Your task to perform on an android device: turn notification dots off Image 0: 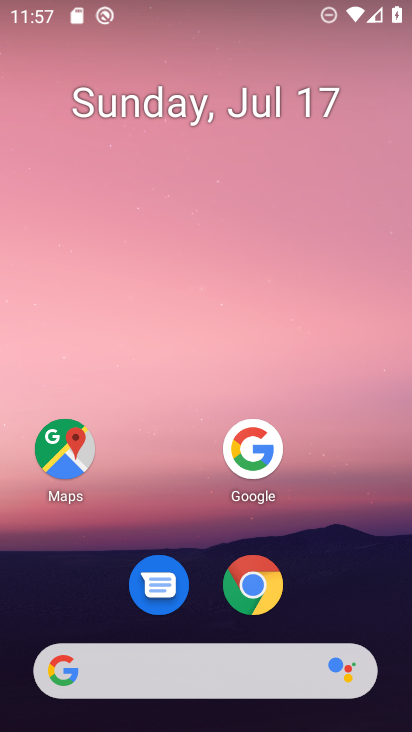
Step 0: drag from (222, 653) to (304, 147)
Your task to perform on an android device: turn notification dots off Image 1: 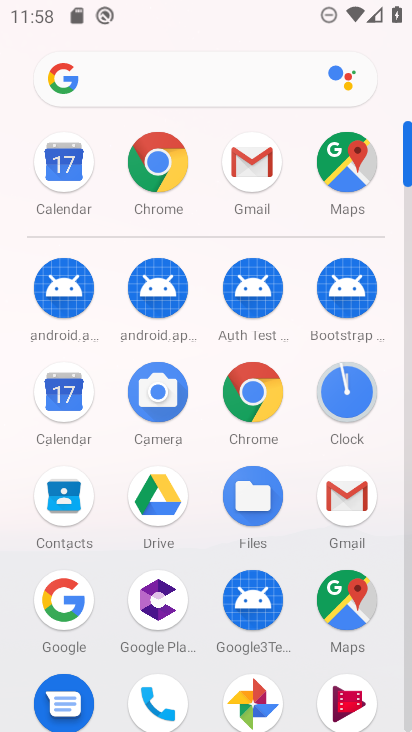
Step 1: drag from (223, 645) to (381, 174)
Your task to perform on an android device: turn notification dots off Image 2: 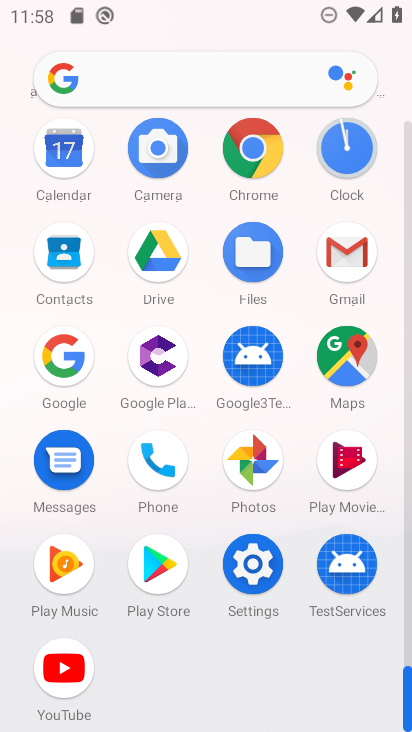
Step 2: click (259, 569)
Your task to perform on an android device: turn notification dots off Image 3: 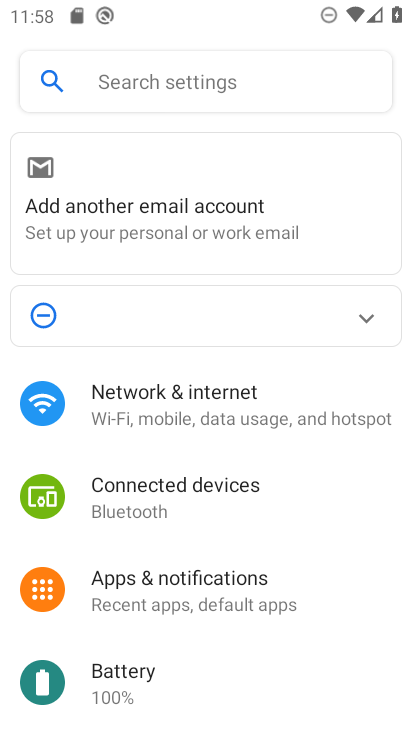
Step 3: click (207, 583)
Your task to perform on an android device: turn notification dots off Image 4: 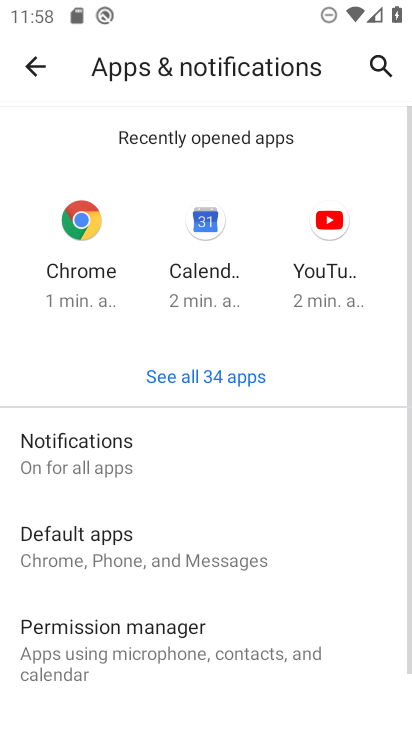
Step 4: click (108, 460)
Your task to perform on an android device: turn notification dots off Image 5: 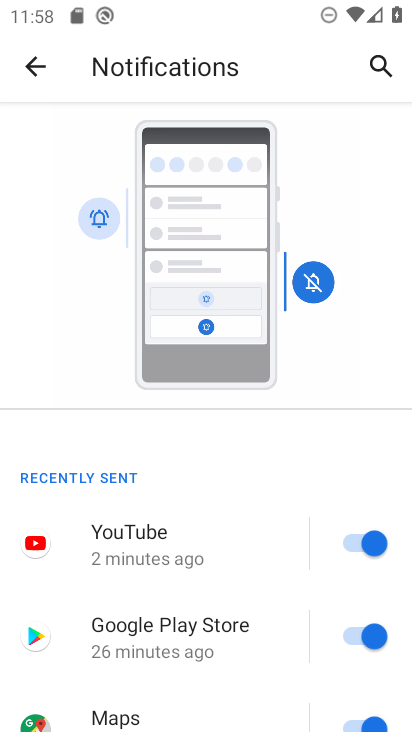
Step 5: drag from (184, 658) to (321, 84)
Your task to perform on an android device: turn notification dots off Image 6: 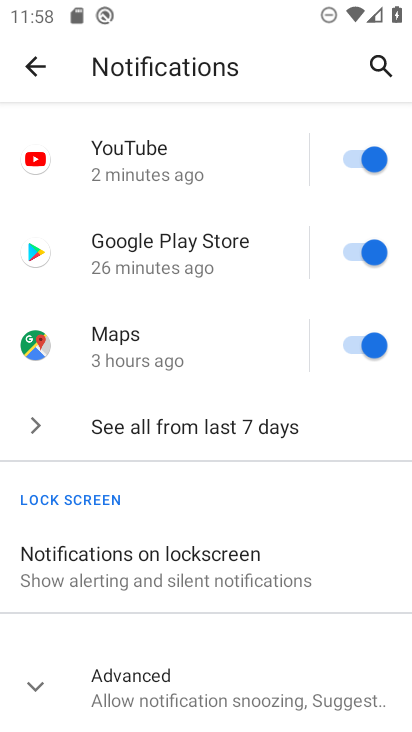
Step 6: click (153, 690)
Your task to perform on an android device: turn notification dots off Image 7: 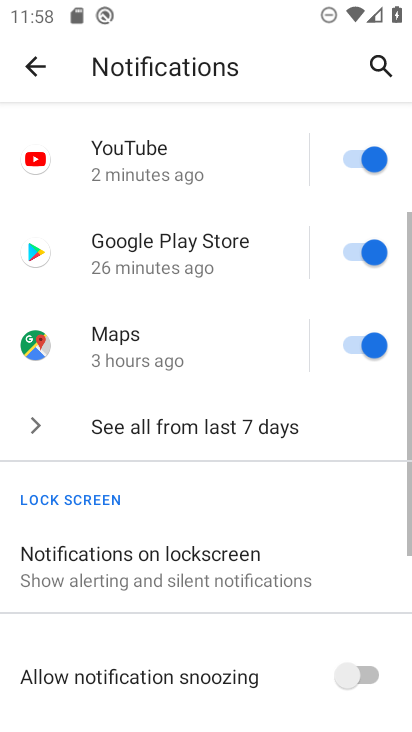
Step 7: drag from (246, 637) to (349, 73)
Your task to perform on an android device: turn notification dots off Image 8: 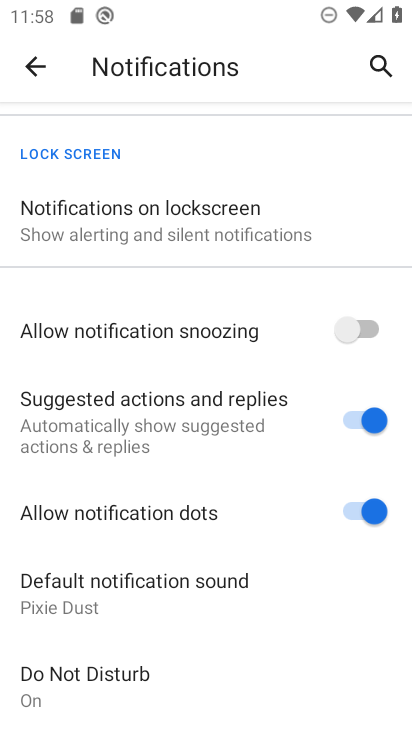
Step 8: click (359, 516)
Your task to perform on an android device: turn notification dots off Image 9: 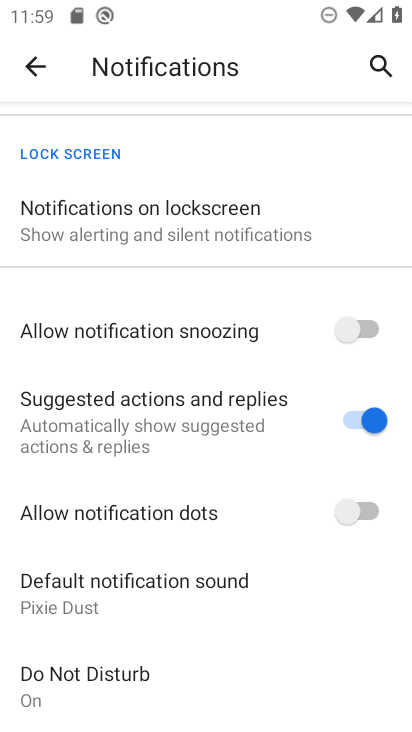
Step 9: task complete